Your task to perform on an android device: Go to Yahoo.com Image 0: 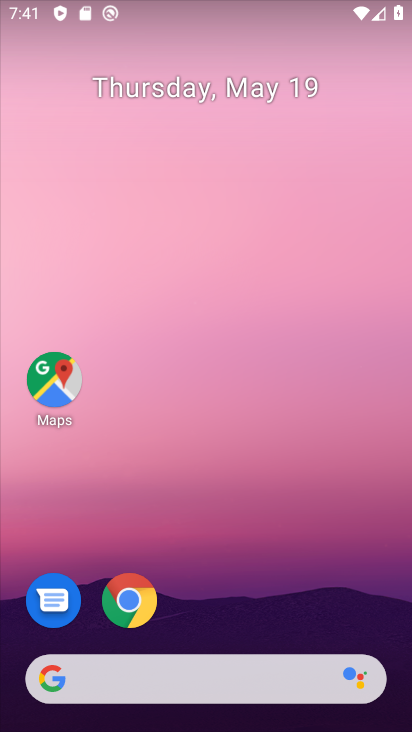
Step 0: click (122, 596)
Your task to perform on an android device: Go to Yahoo.com Image 1: 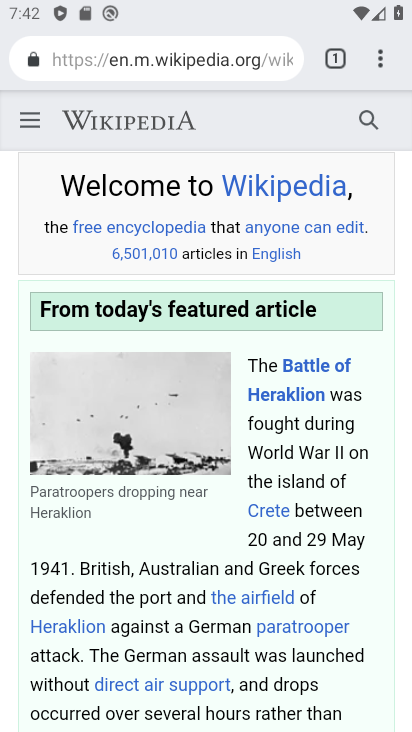
Step 1: click (273, 57)
Your task to perform on an android device: Go to Yahoo.com Image 2: 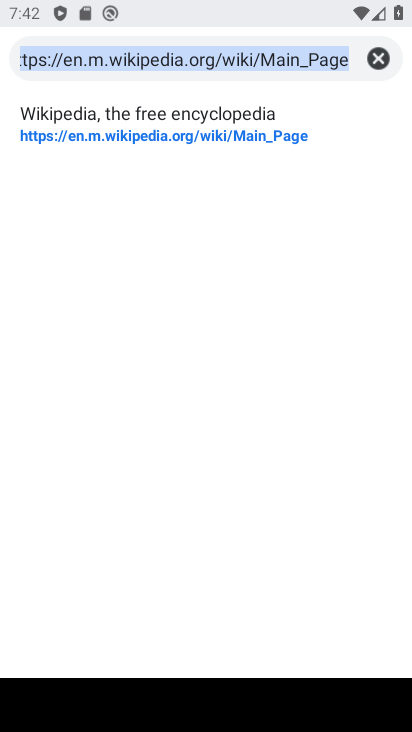
Step 2: type "yahoo.com"
Your task to perform on an android device: Go to Yahoo.com Image 3: 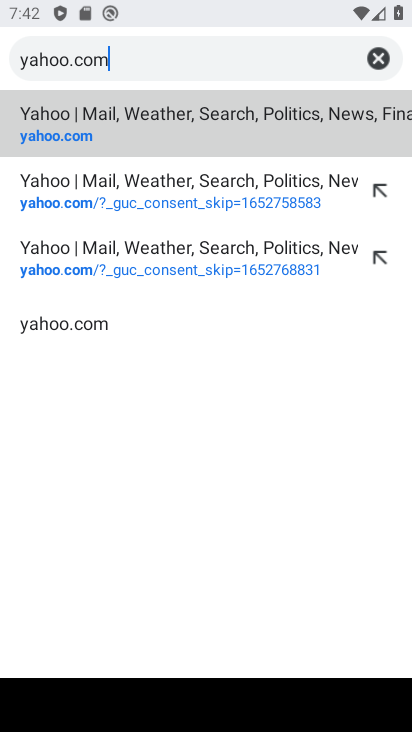
Step 3: click (86, 120)
Your task to perform on an android device: Go to Yahoo.com Image 4: 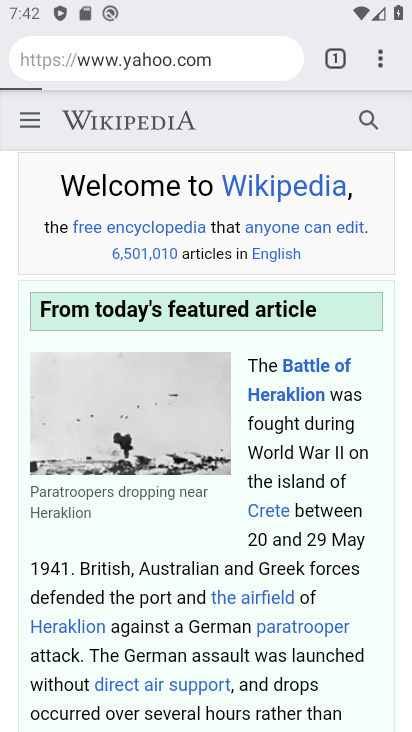
Step 4: task complete